Your task to perform on an android device: set the timer Image 0: 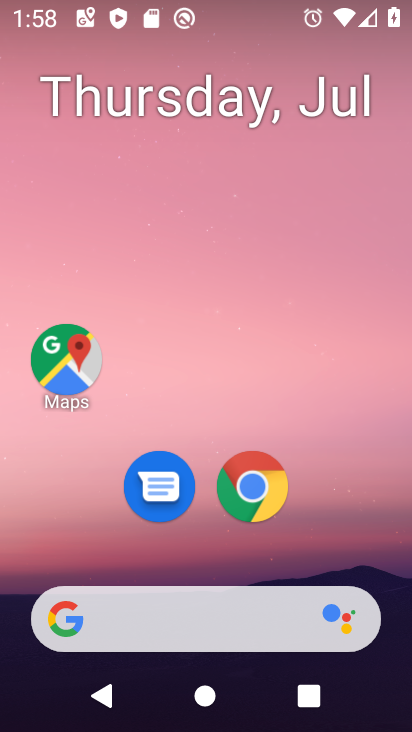
Step 0: drag from (158, 583) to (232, 61)
Your task to perform on an android device: set the timer Image 1: 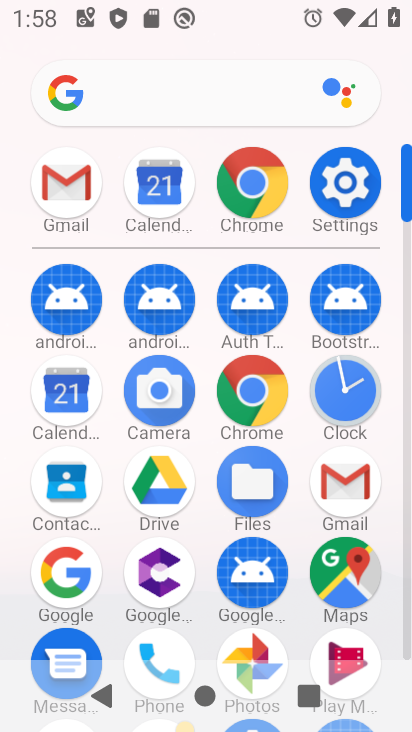
Step 1: click (341, 401)
Your task to perform on an android device: set the timer Image 2: 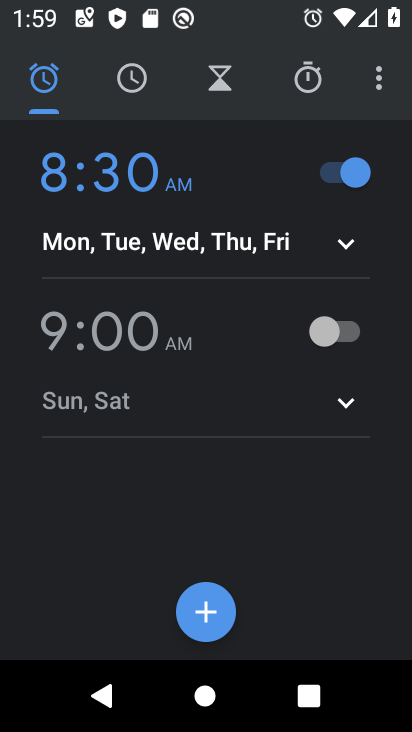
Step 2: click (231, 72)
Your task to perform on an android device: set the timer Image 3: 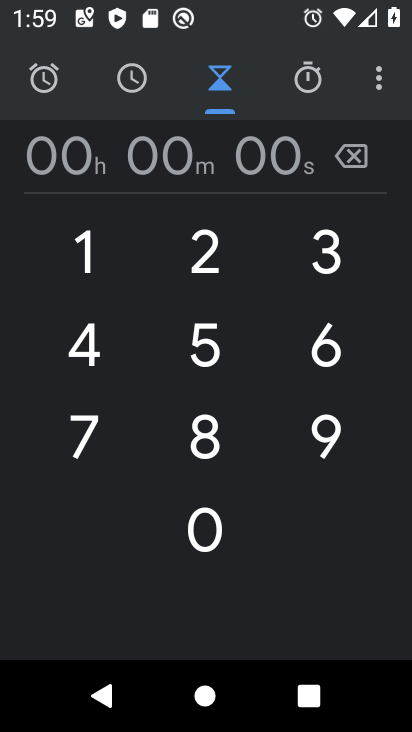
Step 3: click (213, 249)
Your task to perform on an android device: set the timer Image 4: 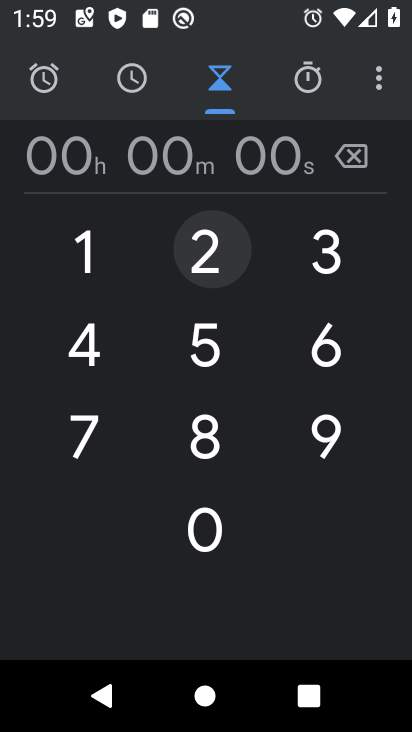
Step 4: click (317, 243)
Your task to perform on an android device: set the timer Image 5: 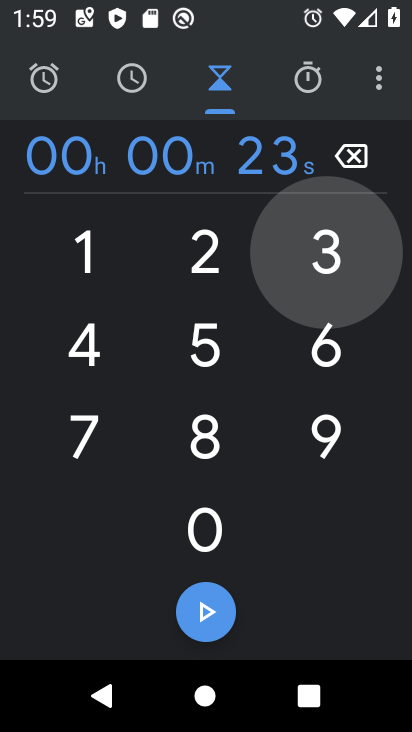
Step 5: click (222, 328)
Your task to perform on an android device: set the timer Image 6: 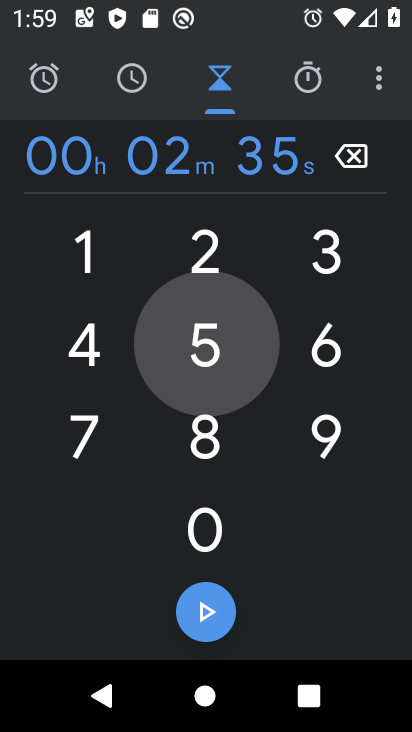
Step 6: click (307, 341)
Your task to perform on an android device: set the timer Image 7: 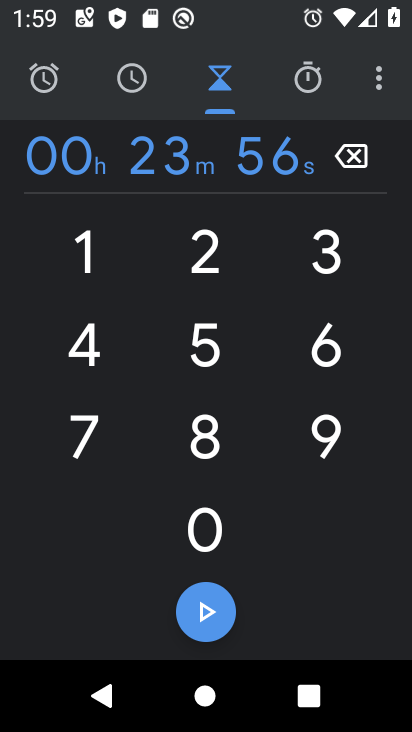
Step 7: click (68, 236)
Your task to perform on an android device: set the timer Image 8: 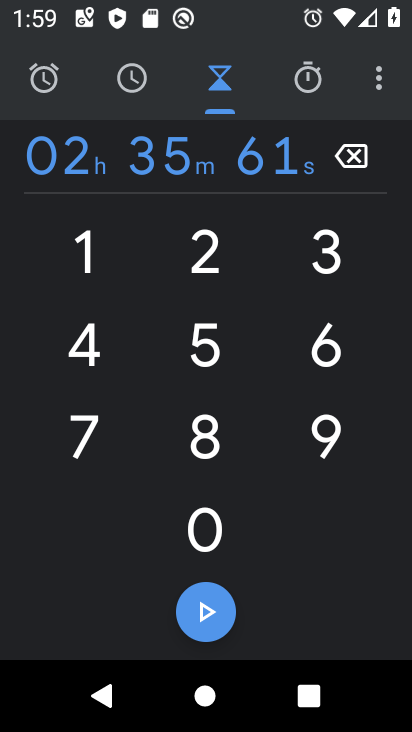
Step 8: task complete